Your task to perform on an android device: uninstall "Google Sheets" Image 0: 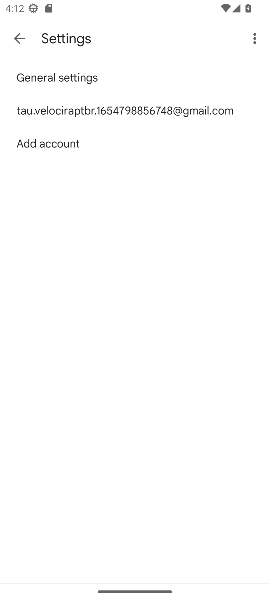
Step 0: press home button
Your task to perform on an android device: uninstall "Google Sheets" Image 1: 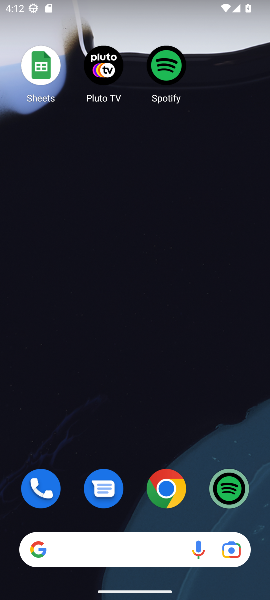
Step 1: drag from (129, 519) to (157, 67)
Your task to perform on an android device: uninstall "Google Sheets" Image 2: 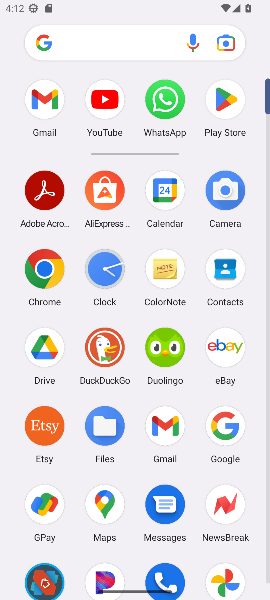
Step 2: click (209, 96)
Your task to perform on an android device: uninstall "Google Sheets" Image 3: 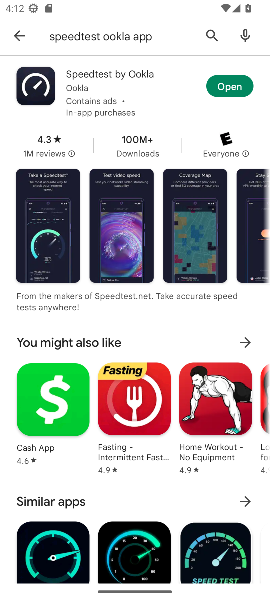
Step 3: click (193, 29)
Your task to perform on an android device: uninstall "Google Sheets" Image 4: 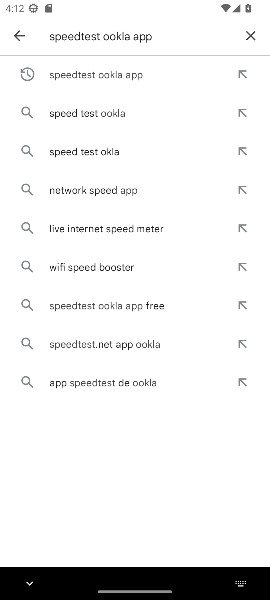
Step 4: click (250, 39)
Your task to perform on an android device: uninstall "Google Sheets" Image 5: 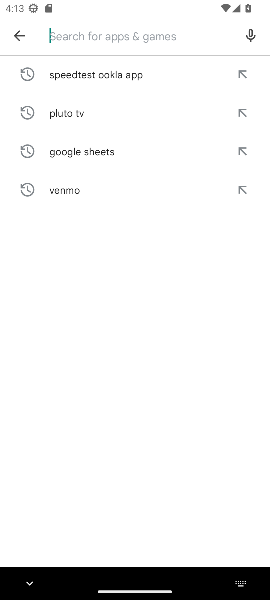
Step 5: type "google sheet"
Your task to perform on an android device: uninstall "Google Sheets" Image 6: 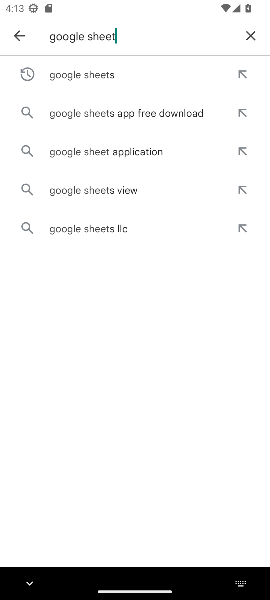
Step 6: click (129, 76)
Your task to perform on an android device: uninstall "Google Sheets" Image 7: 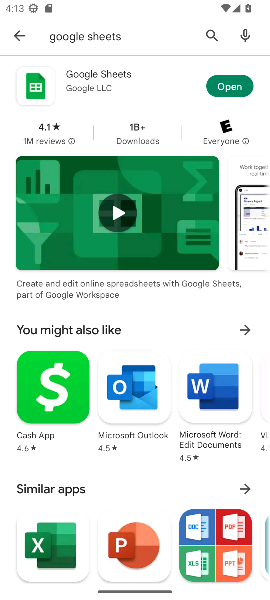
Step 7: click (224, 90)
Your task to perform on an android device: uninstall "Google Sheets" Image 8: 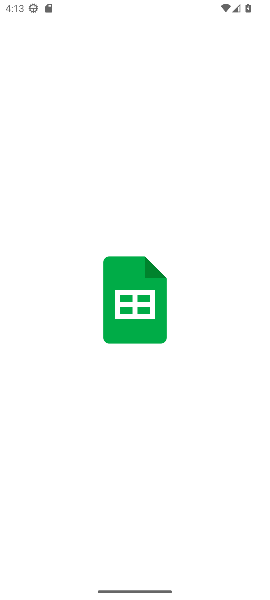
Step 8: task complete